Your task to perform on an android device: Open Youtube and go to "Your channel" Image 0: 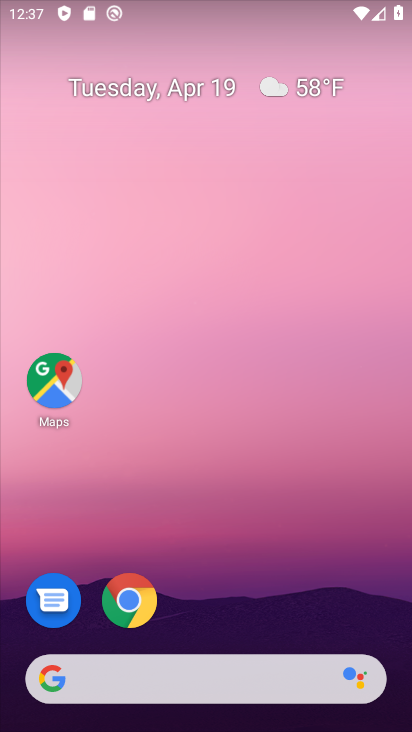
Step 0: drag from (216, 568) to (264, 104)
Your task to perform on an android device: Open Youtube and go to "Your channel" Image 1: 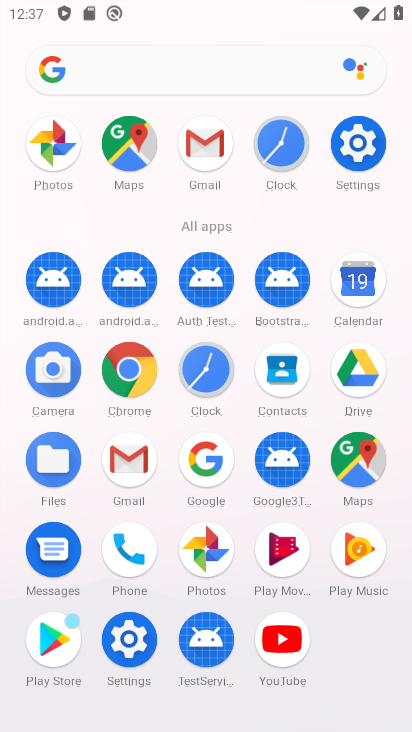
Step 1: click (285, 638)
Your task to perform on an android device: Open Youtube and go to "Your channel" Image 2: 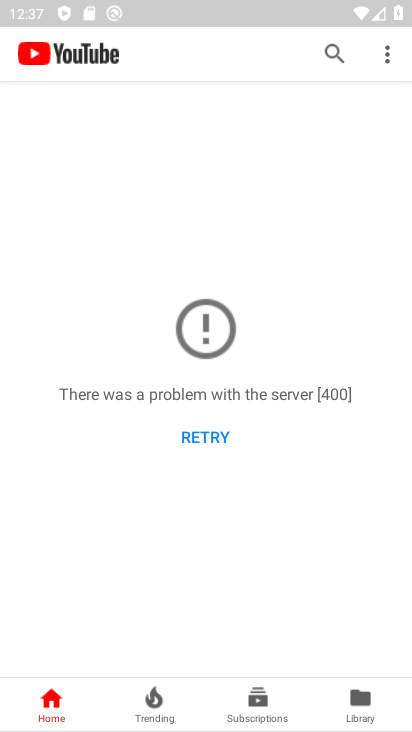
Step 2: click (393, 50)
Your task to perform on an android device: Open Youtube and go to "Your channel" Image 3: 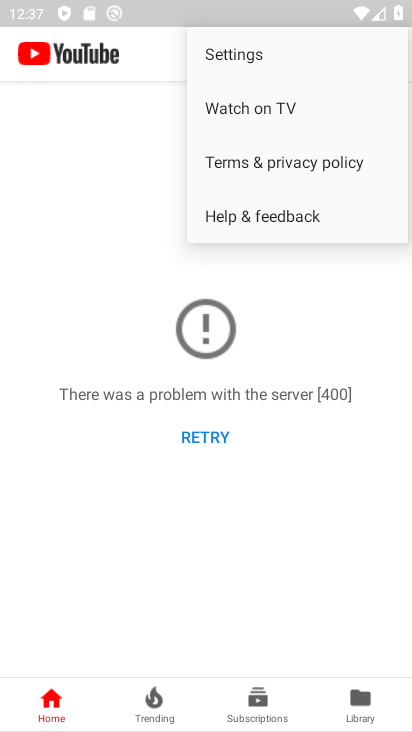
Step 3: click (261, 50)
Your task to perform on an android device: Open Youtube and go to "Your channel" Image 4: 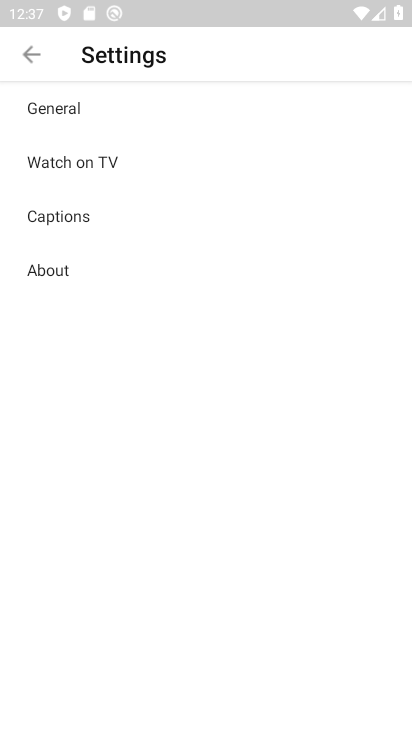
Step 4: task complete